Your task to perform on an android device: change the clock display to show seconds Image 0: 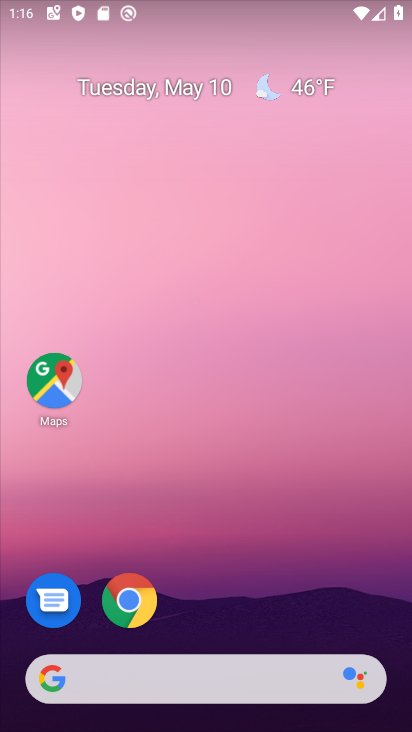
Step 0: drag from (159, 674) to (295, 165)
Your task to perform on an android device: change the clock display to show seconds Image 1: 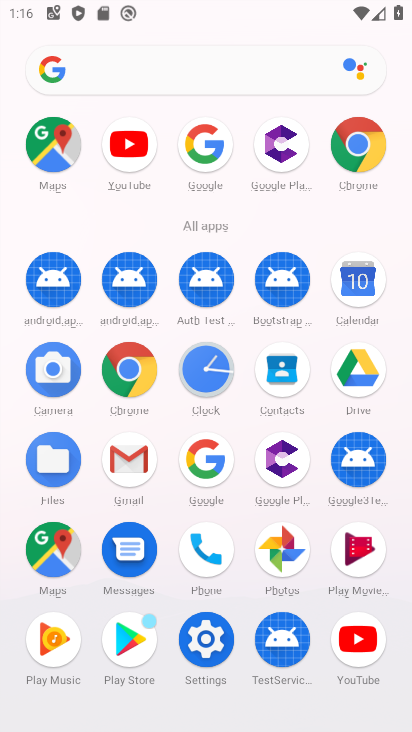
Step 1: click (213, 372)
Your task to perform on an android device: change the clock display to show seconds Image 2: 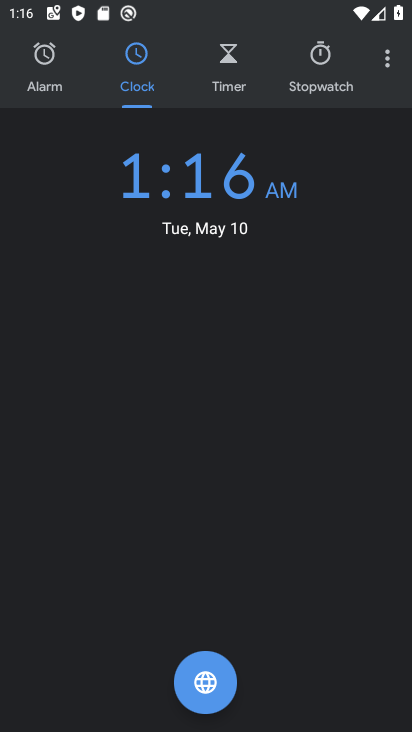
Step 2: click (384, 65)
Your task to perform on an android device: change the clock display to show seconds Image 3: 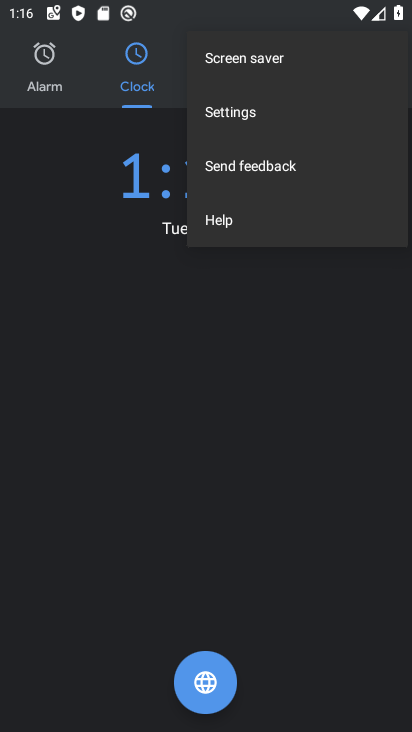
Step 3: click (294, 117)
Your task to perform on an android device: change the clock display to show seconds Image 4: 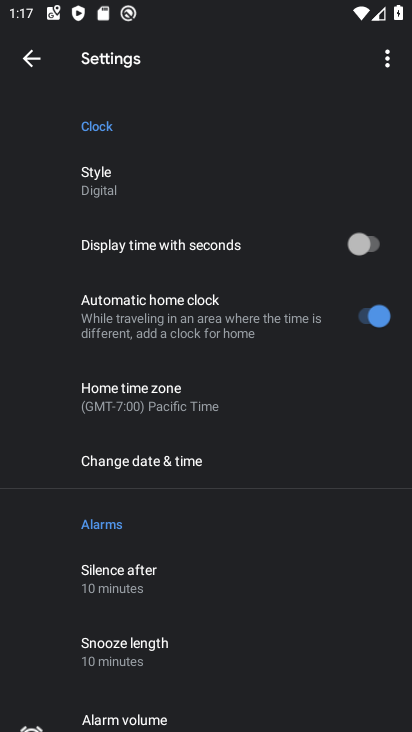
Step 4: click (380, 243)
Your task to perform on an android device: change the clock display to show seconds Image 5: 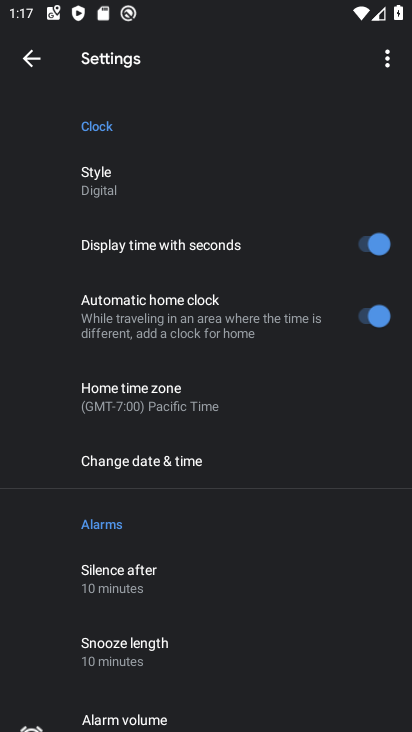
Step 5: task complete